Your task to perform on an android device: star an email in the gmail app Image 0: 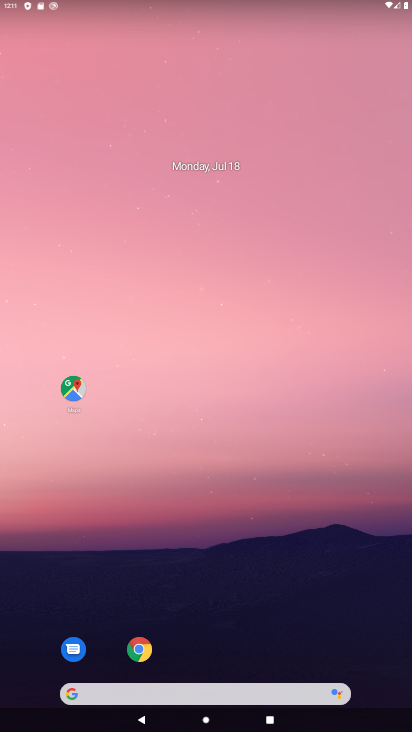
Step 0: drag from (183, 623) to (210, 56)
Your task to perform on an android device: star an email in the gmail app Image 1: 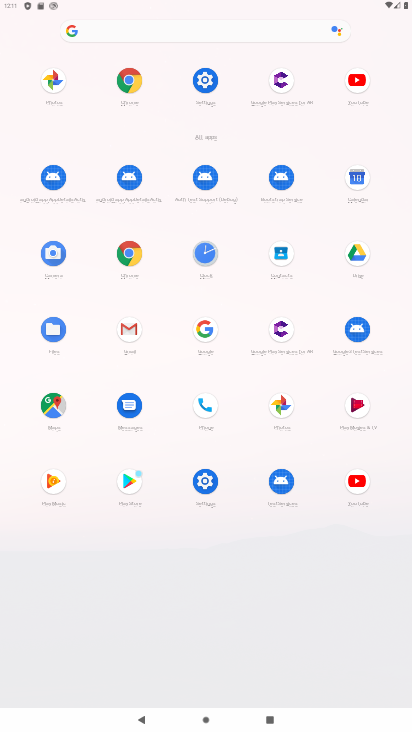
Step 1: click (122, 340)
Your task to perform on an android device: star an email in the gmail app Image 2: 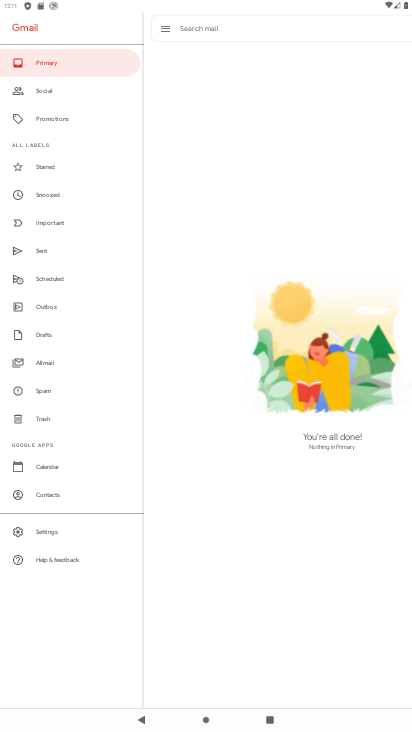
Step 2: click (44, 528)
Your task to perform on an android device: star an email in the gmail app Image 3: 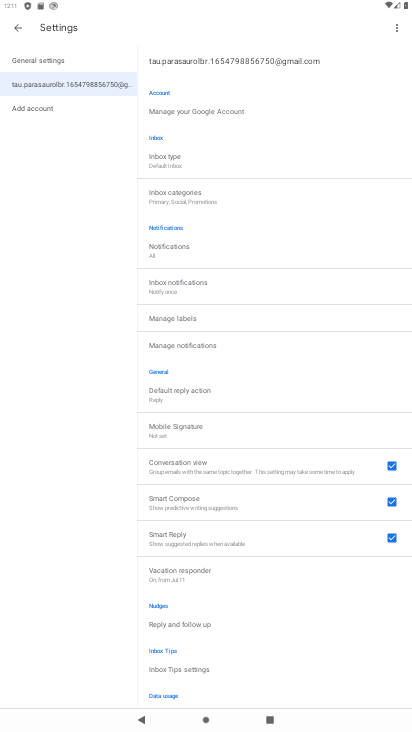
Step 3: click (16, 28)
Your task to perform on an android device: star an email in the gmail app Image 4: 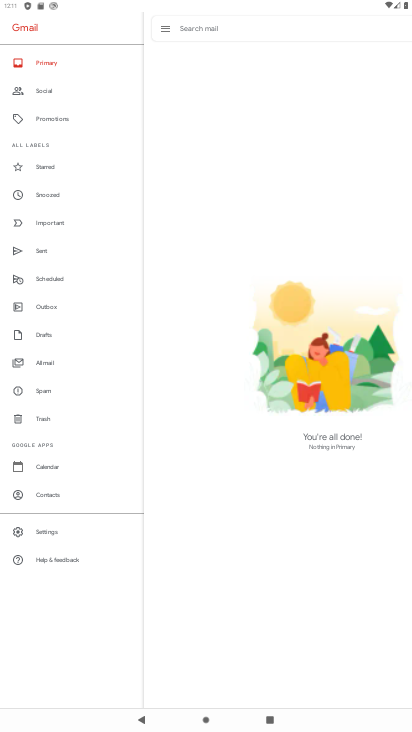
Step 4: click (59, 361)
Your task to perform on an android device: star an email in the gmail app Image 5: 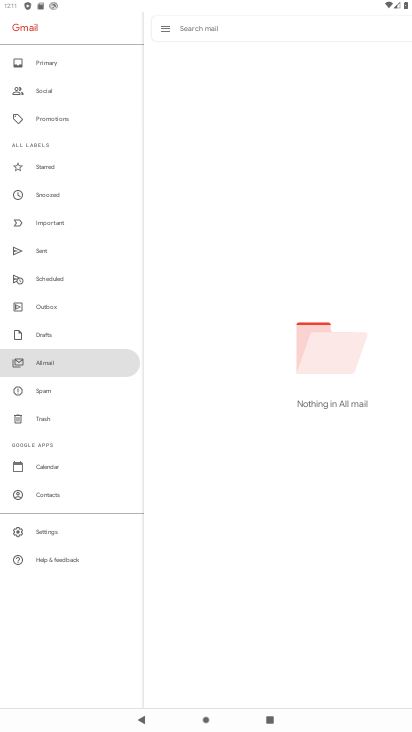
Step 5: task complete